Your task to perform on an android device: Go to Amazon Image 0: 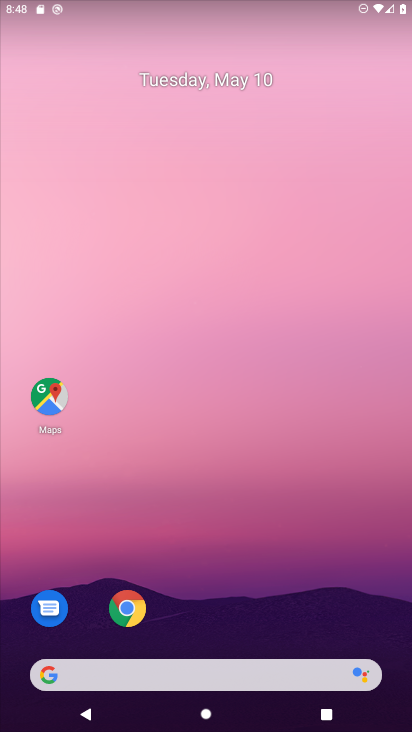
Step 0: drag from (335, 616) to (249, 60)
Your task to perform on an android device: Go to Amazon Image 1: 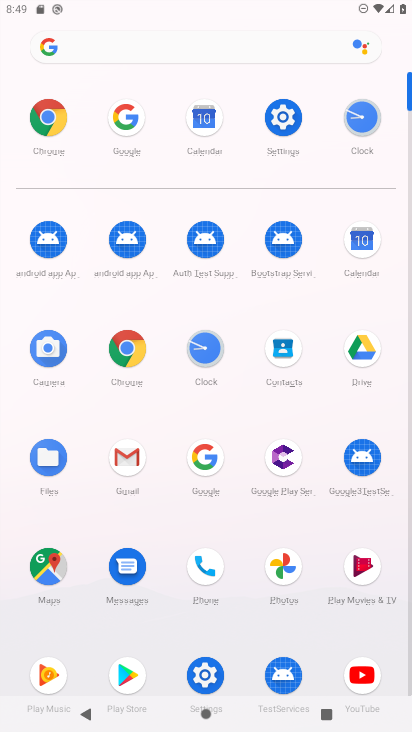
Step 1: click (61, 122)
Your task to perform on an android device: Go to Amazon Image 2: 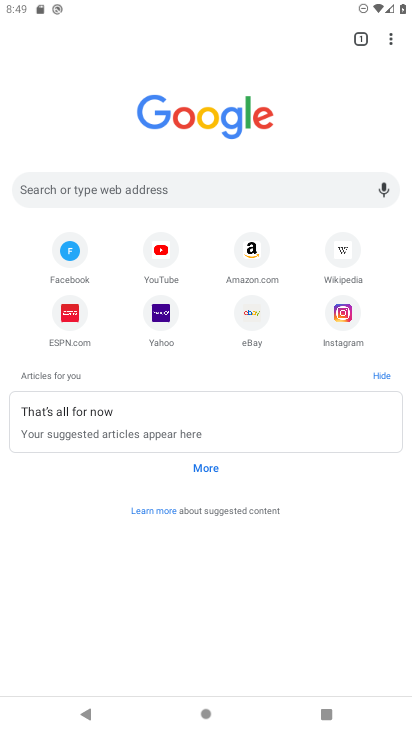
Step 2: click (259, 256)
Your task to perform on an android device: Go to Amazon Image 3: 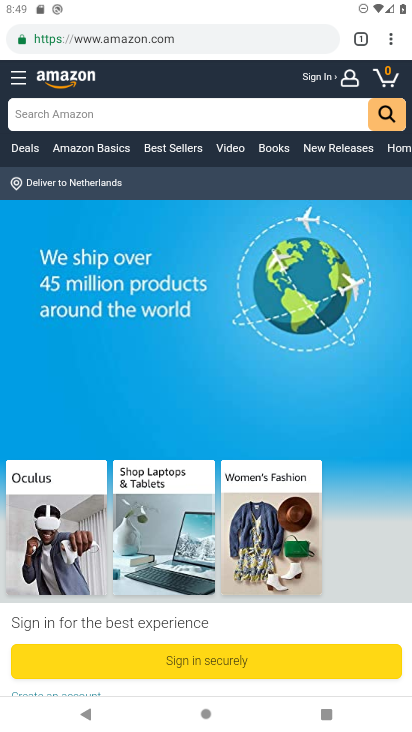
Step 3: task complete